Your task to perform on an android device: Open Yahoo.com Image 0: 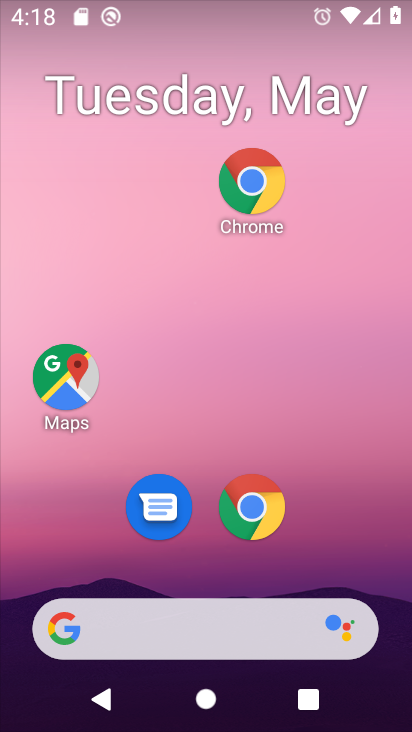
Step 0: click (255, 187)
Your task to perform on an android device: Open Yahoo.com Image 1: 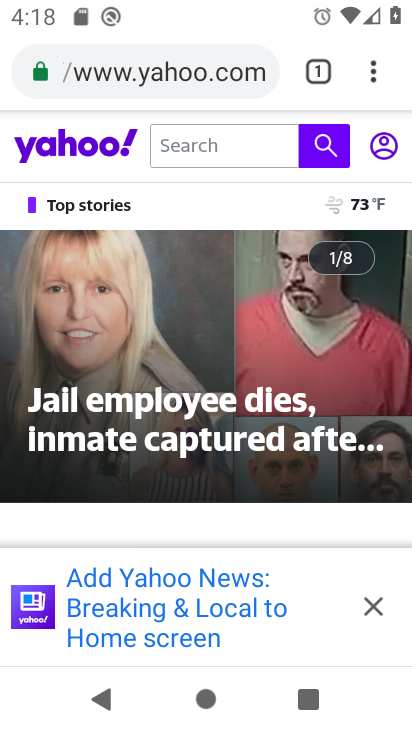
Step 1: click (376, 612)
Your task to perform on an android device: Open Yahoo.com Image 2: 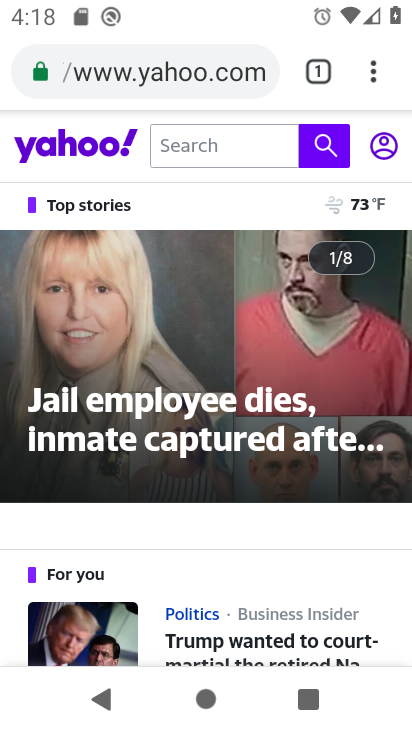
Step 2: task complete